Your task to perform on an android device: Go to Wikipedia Image 0: 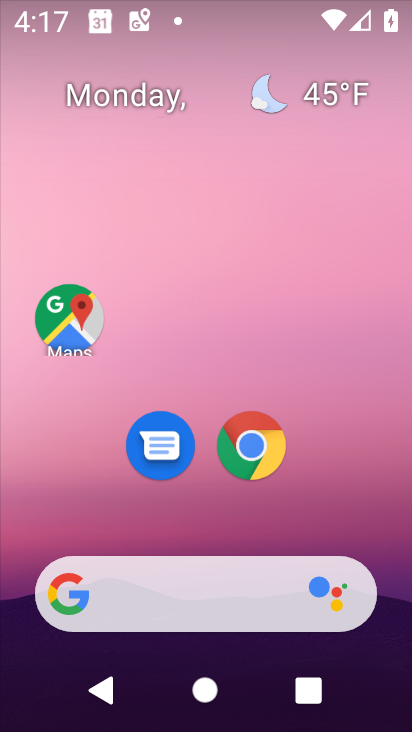
Step 0: click (267, 438)
Your task to perform on an android device: Go to Wikipedia Image 1: 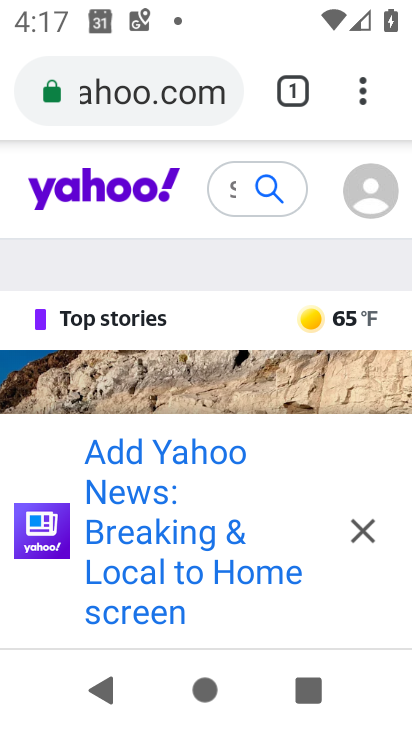
Step 1: click (155, 74)
Your task to perform on an android device: Go to Wikipedia Image 2: 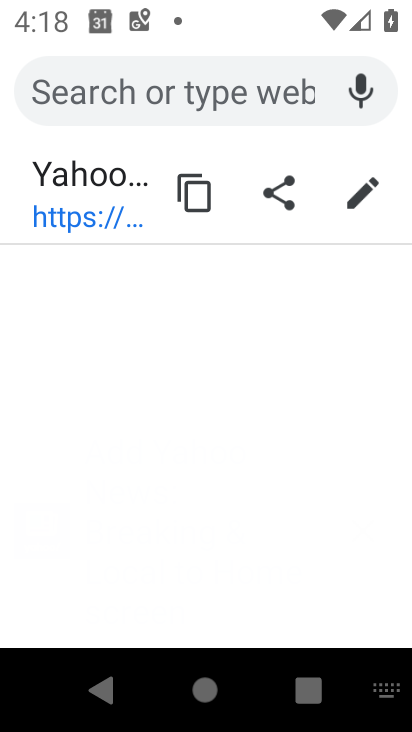
Step 2: type "wikipedia"
Your task to perform on an android device: Go to Wikipedia Image 3: 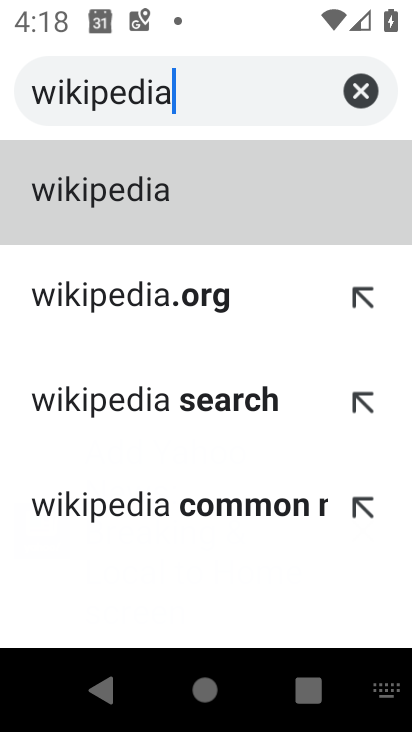
Step 3: click (114, 193)
Your task to perform on an android device: Go to Wikipedia Image 4: 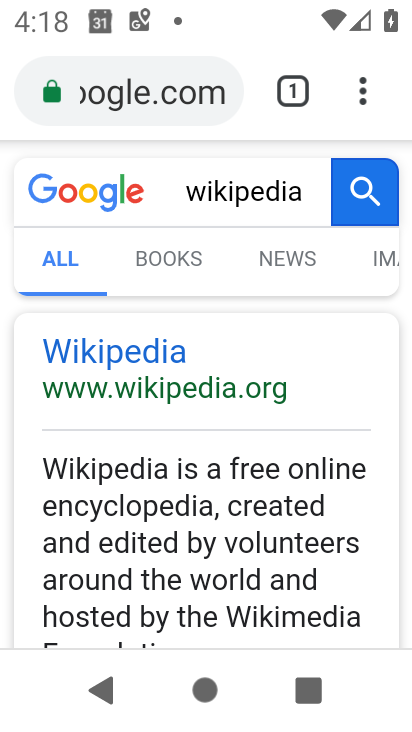
Step 4: click (139, 348)
Your task to perform on an android device: Go to Wikipedia Image 5: 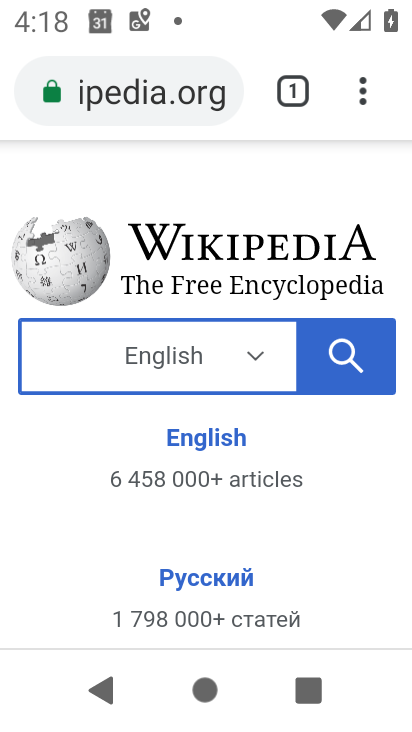
Step 5: task complete